Your task to perform on an android device: turn on improve location accuracy Image 0: 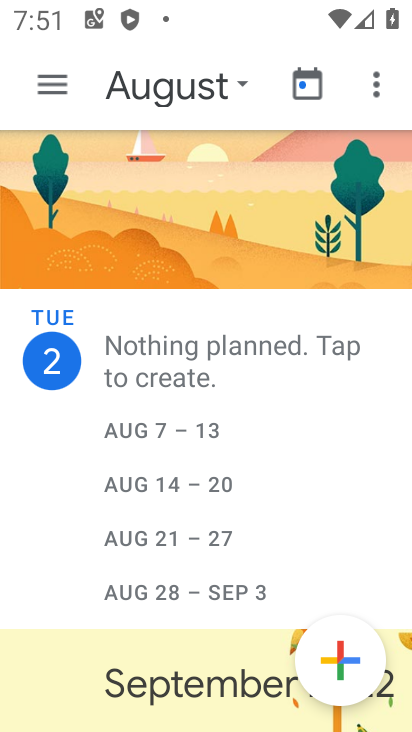
Step 0: press home button
Your task to perform on an android device: turn on improve location accuracy Image 1: 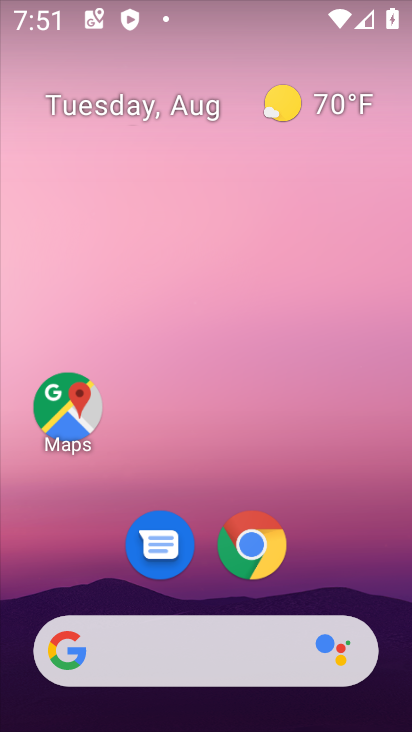
Step 1: drag from (219, 613) to (139, 120)
Your task to perform on an android device: turn on improve location accuracy Image 2: 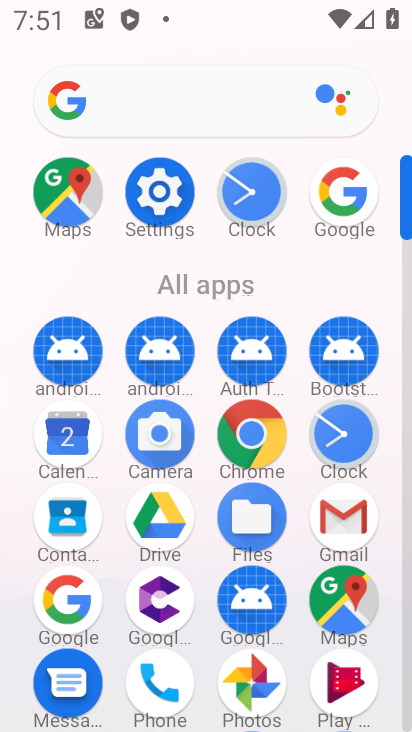
Step 2: click (147, 216)
Your task to perform on an android device: turn on improve location accuracy Image 3: 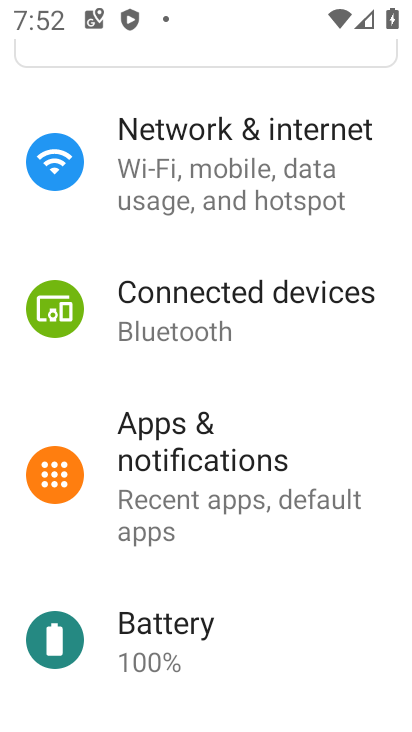
Step 3: drag from (184, 642) to (232, 192)
Your task to perform on an android device: turn on improve location accuracy Image 4: 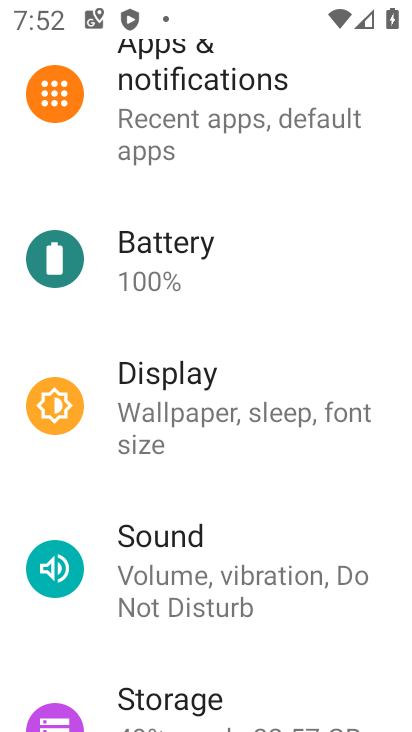
Step 4: drag from (160, 512) to (209, 156)
Your task to perform on an android device: turn on improve location accuracy Image 5: 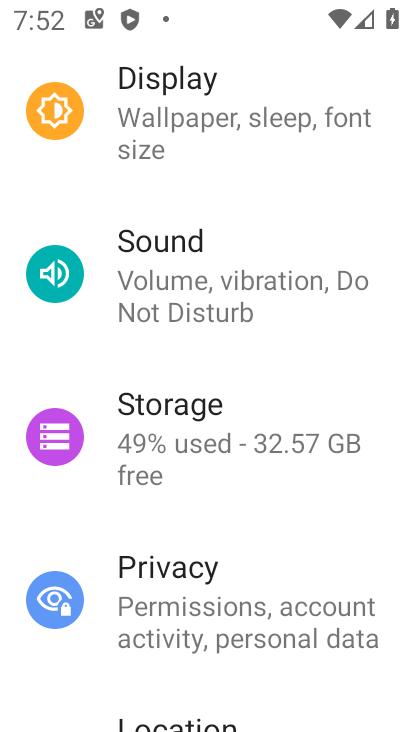
Step 5: drag from (192, 221) to (166, 101)
Your task to perform on an android device: turn on improve location accuracy Image 6: 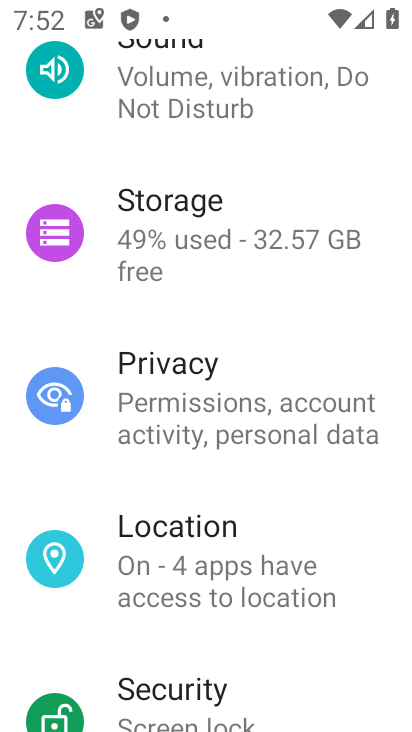
Step 6: click (202, 571)
Your task to perform on an android device: turn on improve location accuracy Image 7: 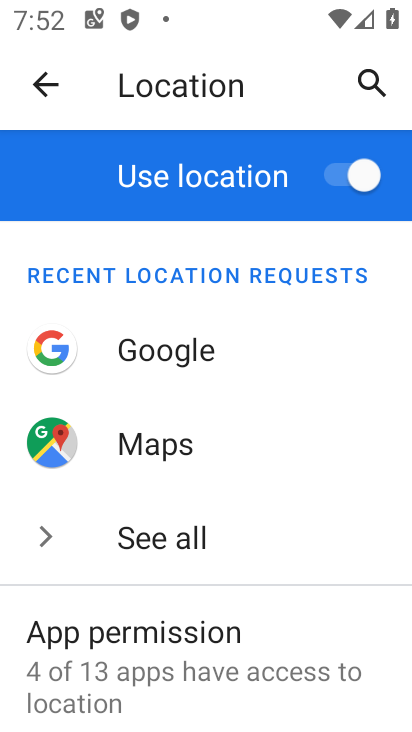
Step 7: drag from (144, 615) to (145, 143)
Your task to perform on an android device: turn on improve location accuracy Image 8: 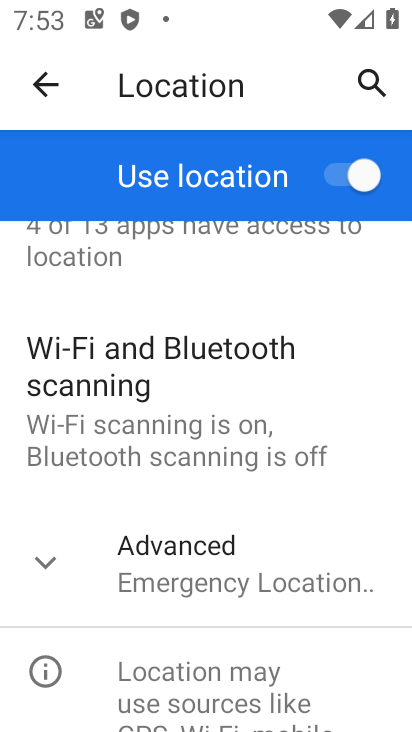
Step 8: click (210, 585)
Your task to perform on an android device: turn on improve location accuracy Image 9: 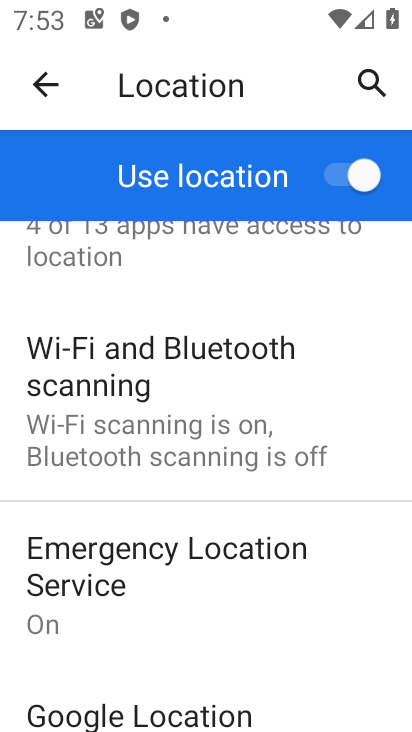
Step 9: drag from (230, 680) to (294, 263)
Your task to perform on an android device: turn on improve location accuracy Image 10: 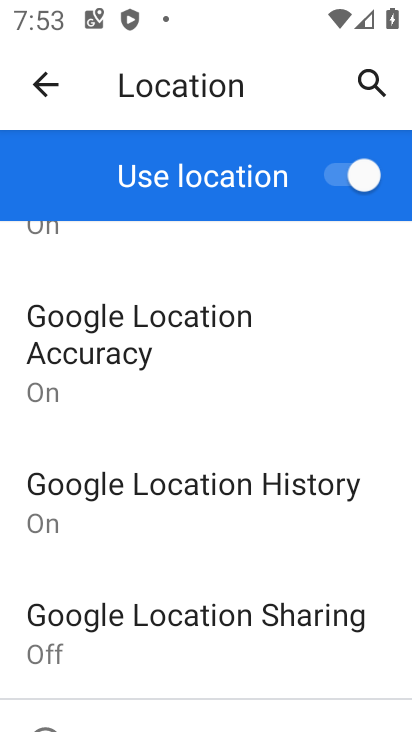
Step 10: click (220, 362)
Your task to perform on an android device: turn on improve location accuracy Image 11: 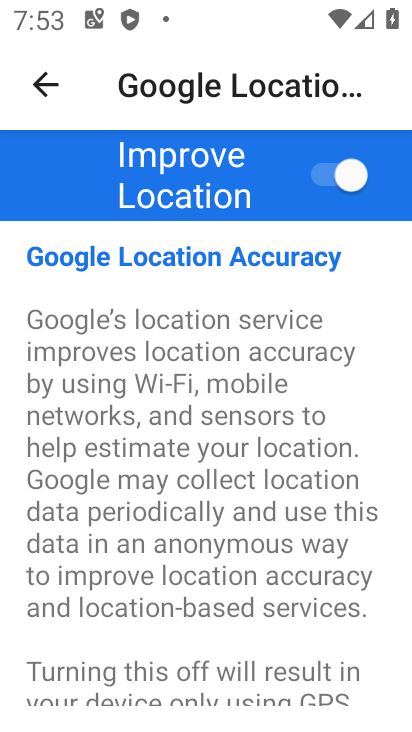
Step 11: task complete